Your task to perform on an android device: uninstall "Firefox Browser" Image 0: 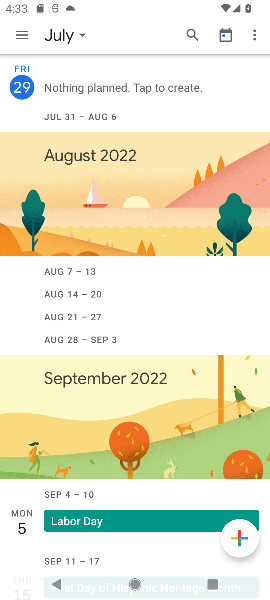
Step 0: press home button
Your task to perform on an android device: uninstall "Firefox Browser" Image 1: 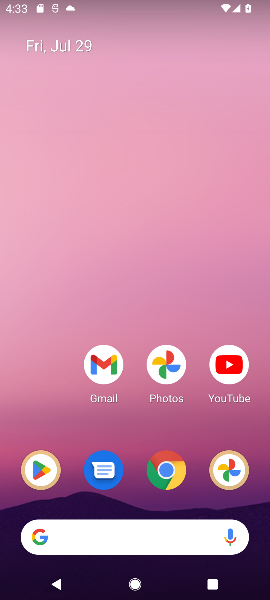
Step 1: click (44, 473)
Your task to perform on an android device: uninstall "Firefox Browser" Image 2: 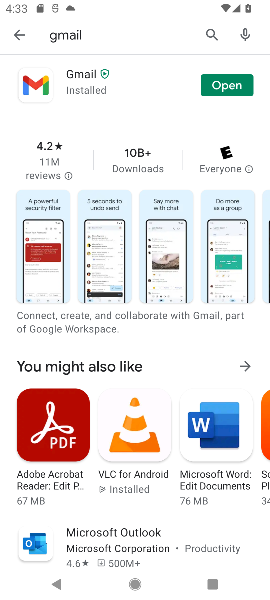
Step 2: click (214, 29)
Your task to perform on an android device: uninstall "Firefox Browser" Image 3: 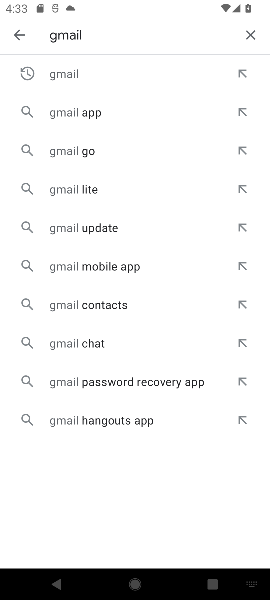
Step 3: click (245, 27)
Your task to perform on an android device: uninstall "Firefox Browser" Image 4: 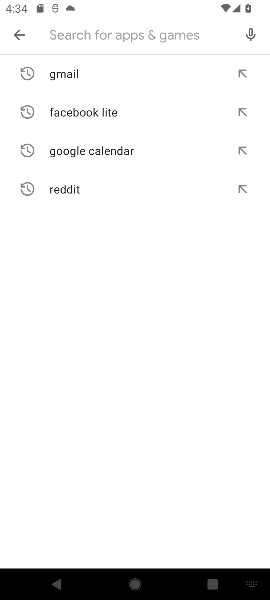
Step 4: type "Firefox Browser"
Your task to perform on an android device: uninstall "Firefox Browser" Image 5: 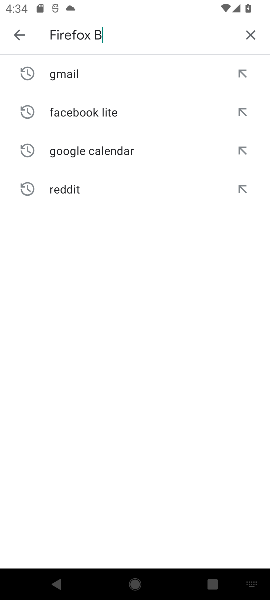
Step 5: type ""
Your task to perform on an android device: uninstall "Firefox Browser" Image 6: 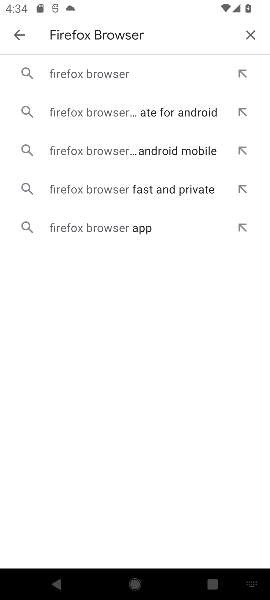
Step 6: click (165, 72)
Your task to perform on an android device: uninstall "Firefox Browser" Image 7: 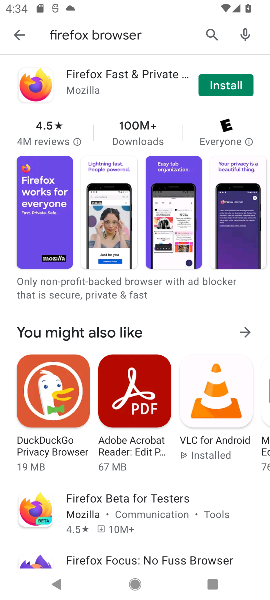
Step 7: task complete